Your task to perform on an android device: see creations saved in the google photos Image 0: 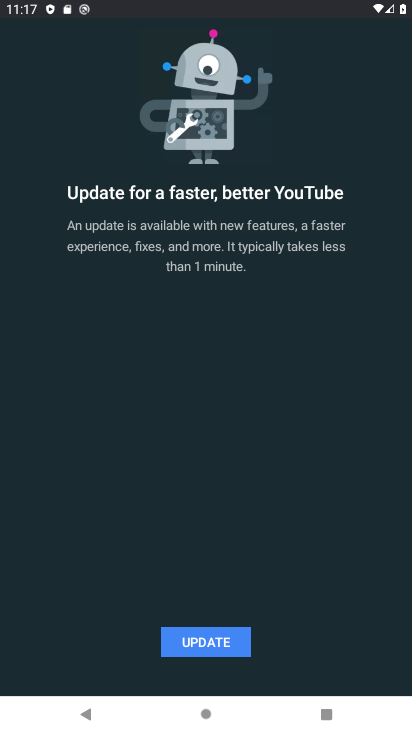
Step 0: press home button
Your task to perform on an android device: see creations saved in the google photos Image 1: 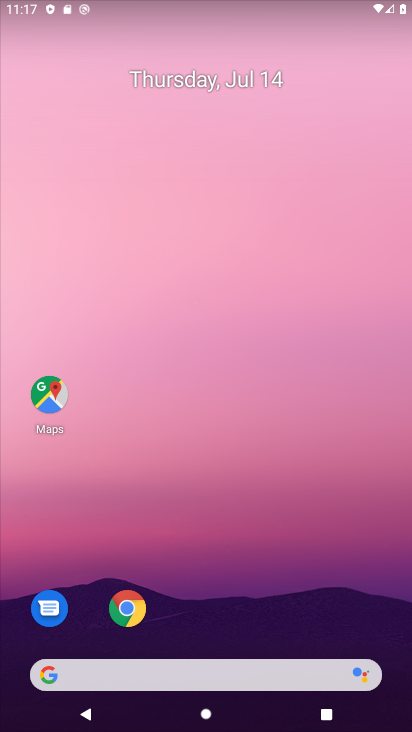
Step 1: drag from (338, 650) to (311, 55)
Your task to perform on an android device: see creations saved in the google photos Image 2: 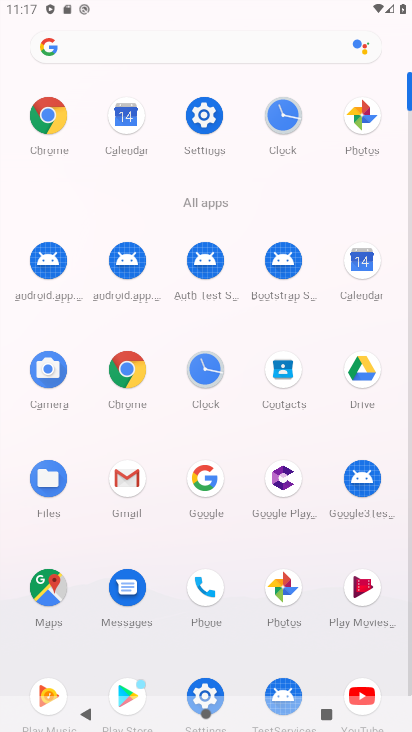
Step 2: click (291, 582)
Your task to perform on an android device: see creations saved in the google photos Image 3: 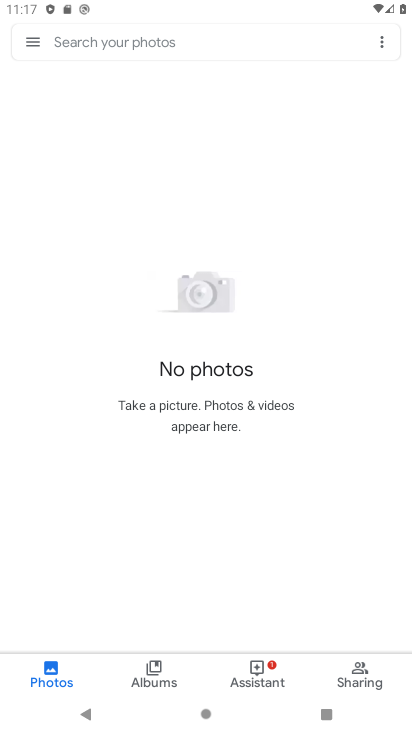
Step 3: click (276, 673)
Your task to perform on an android device: see creations saved in the google photos Image 4: 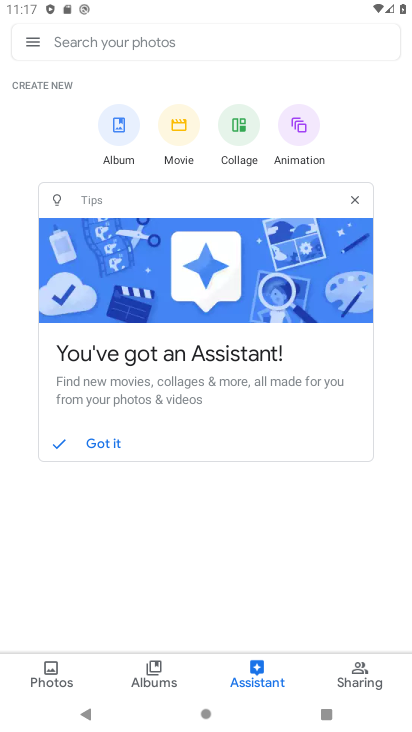
Step 4: press home button
Your task to perform on an android device: see creations saved in the google photos Image 5: 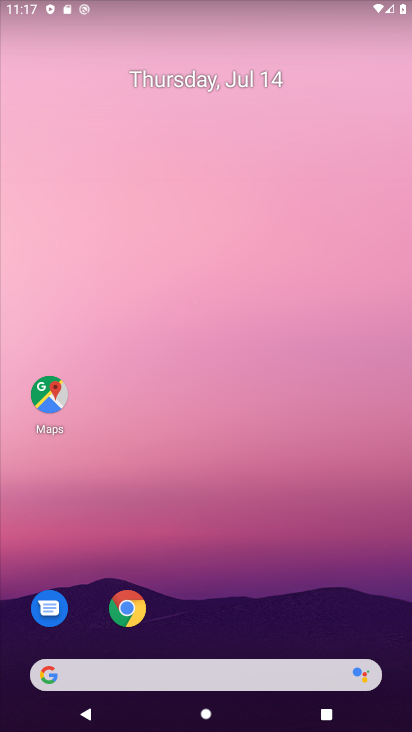
Step 5: drag from (348, 609) to (338, 308)
Your task to perform on an android device: see creations saved in the google photos Image 6: 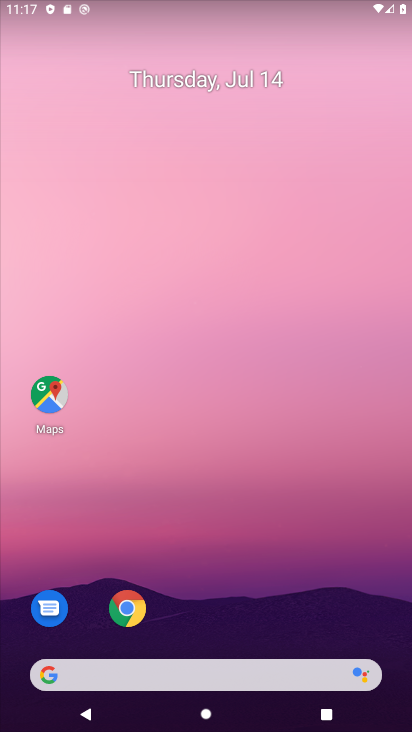
Step 6: drag from (199, 663) to (204, 148)
Your task to perform on an android device: see creations saved in the google photos Image 7: 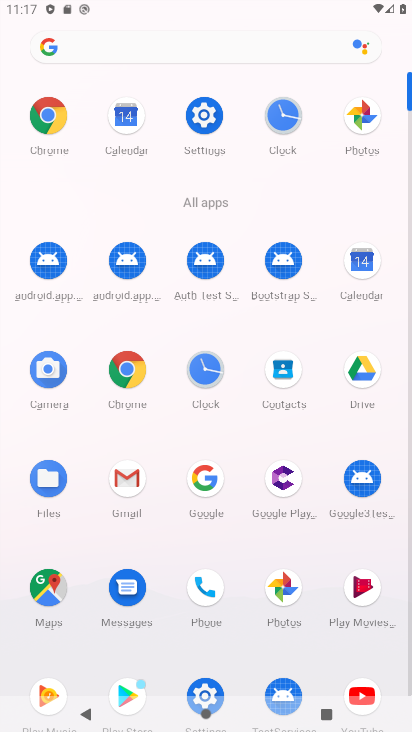
Step 7: click (273, 576)
Your task to perform on an android device: see creations saved in the google photos Image 8: 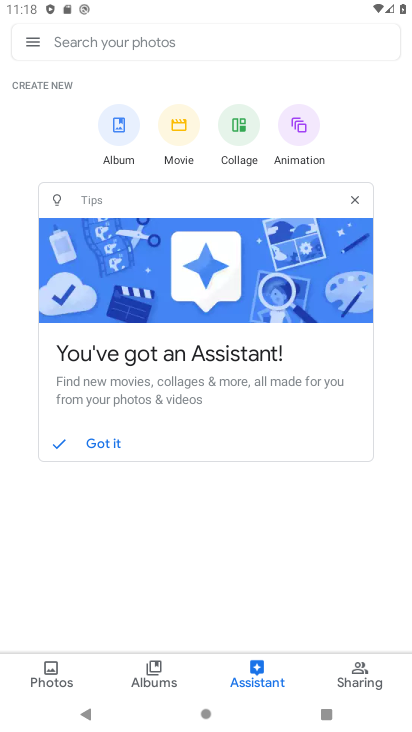
Step 8: click (159, 665)
Your task to perform on an android device: see creations saved in the google photos Image 9: 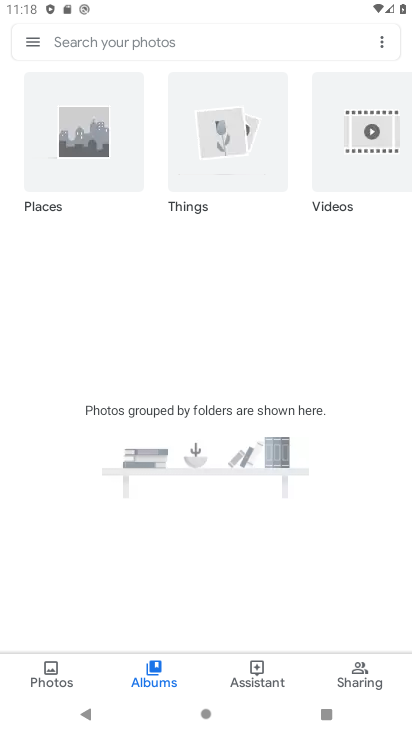
Step 9: task complete